Your task to perform on an android device: Open Reddit.com Image 0: 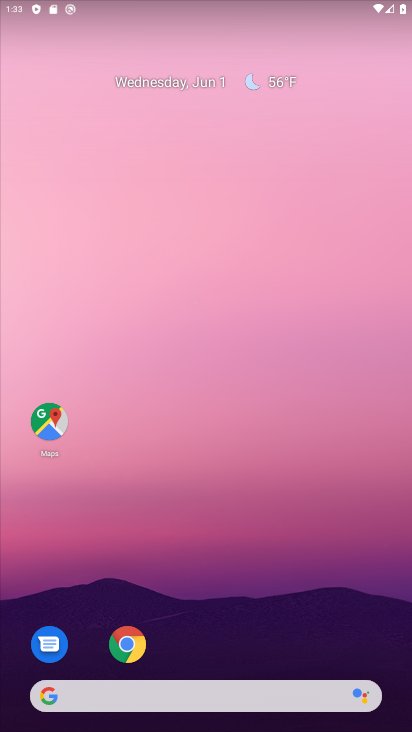
Step 0: drag from (169, 674) to (203, 342)
Your task to perform on an android device: Open Reddit.com Image 1: 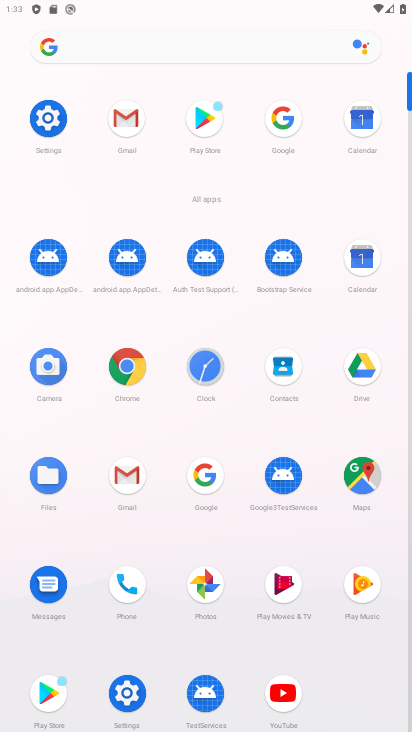
Step 1: click (213, 480)
Your task to perform on an android device: Open Reddit.com Image 2: 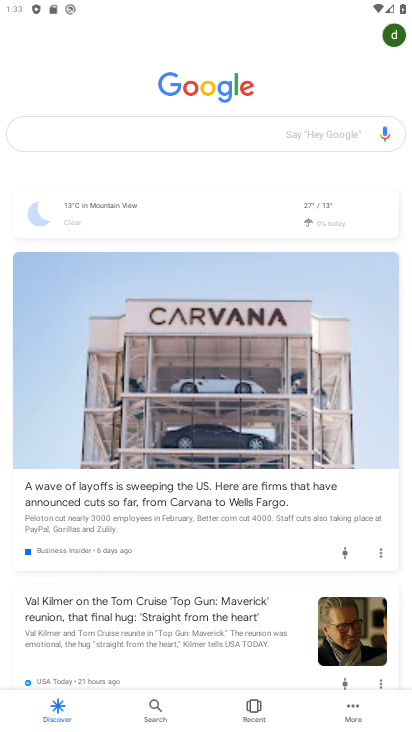
Step 2: click (114, 128)
Your task to perform on an android device: Open Reddit.com Image 3: 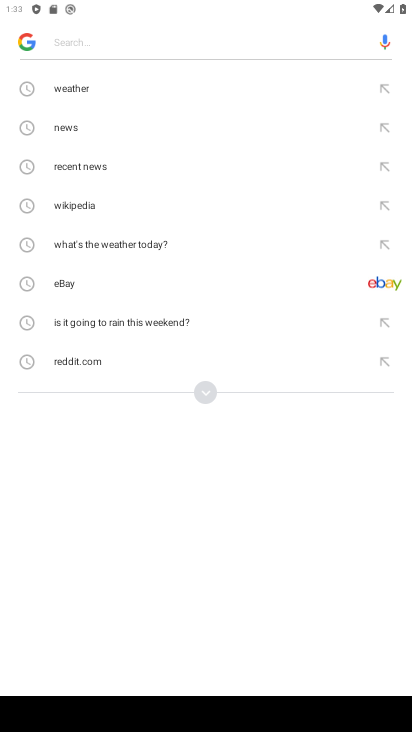
Step 3: click (206, 392)
Your task to perform on an android device: Open Reddit.com Image 4: 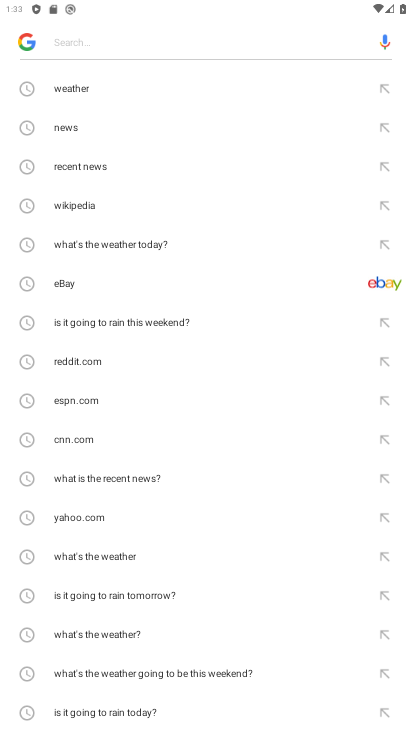
Step 4: click (81, 365)
Your task to perform on an android device: Open Reddit.com Image 5: 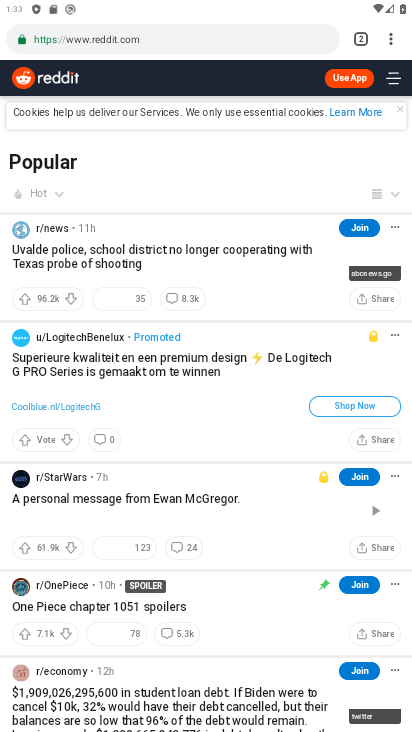
Step 5: task complete